Your task to perform on an android device: open wifi settings Image 0: 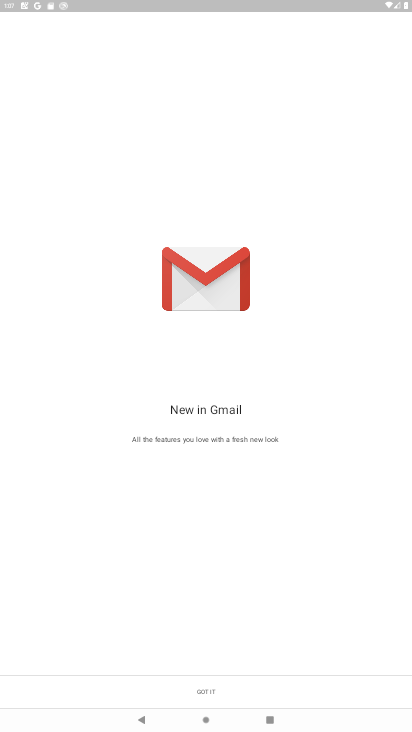
Step 0: press home button
Your task to perform on an android device: open wifi settings Image 1: 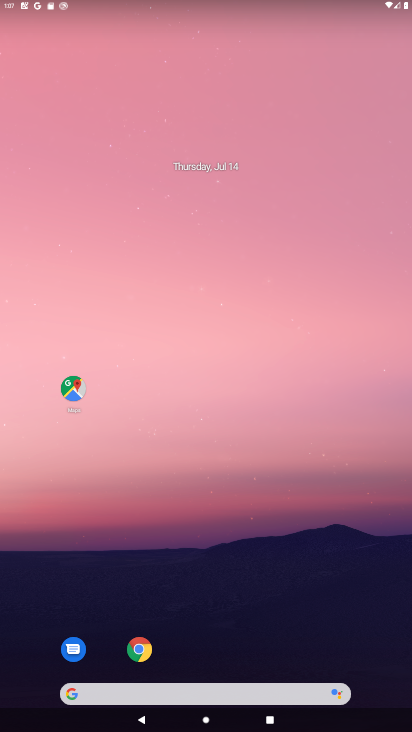
Step 1: drag from (191, 694) to (135, 205)
Your task to perform on an android device: open wifi settings Image 2: 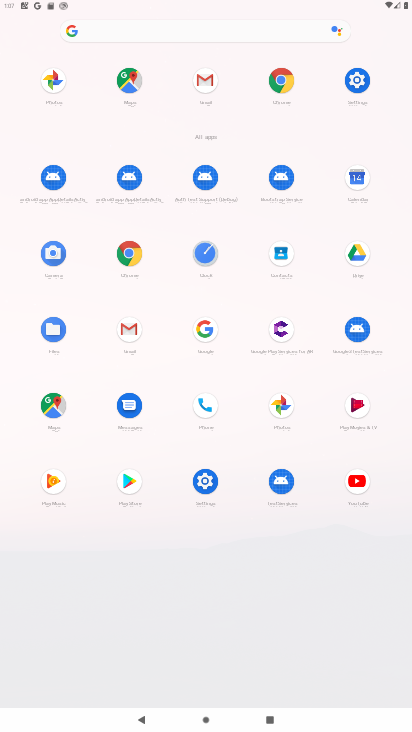
Step 2: click (348, 87)
Your task to perform on an android device: open wifi settings Image 3: 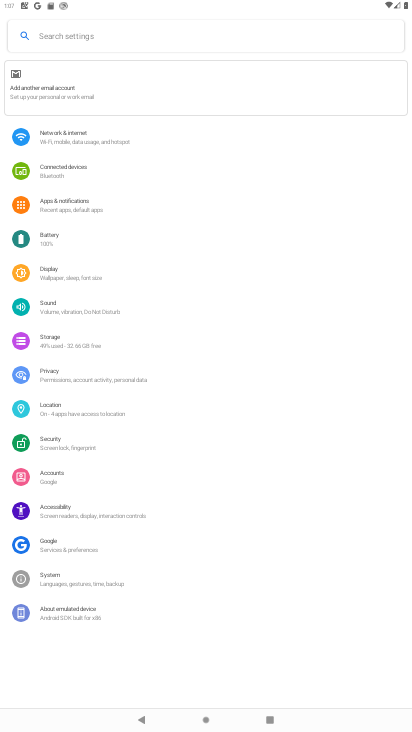
Step 3: click (149, 143)
Your task to perform on an android device: open wifi settings Image 4: 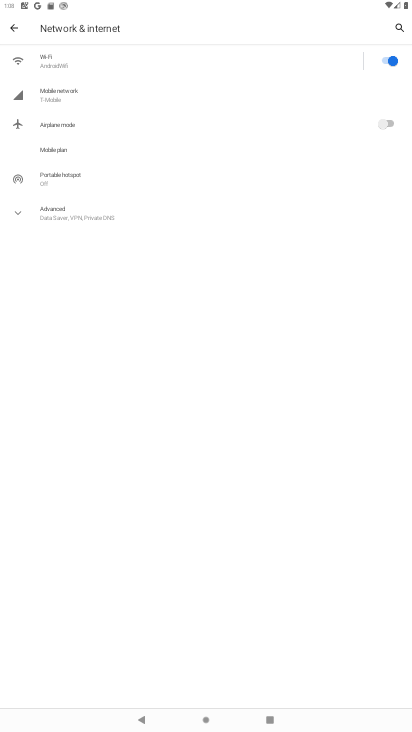
Step 4: click (154, 55)
Your task to perform on an android device: open wifi settings Image 5: 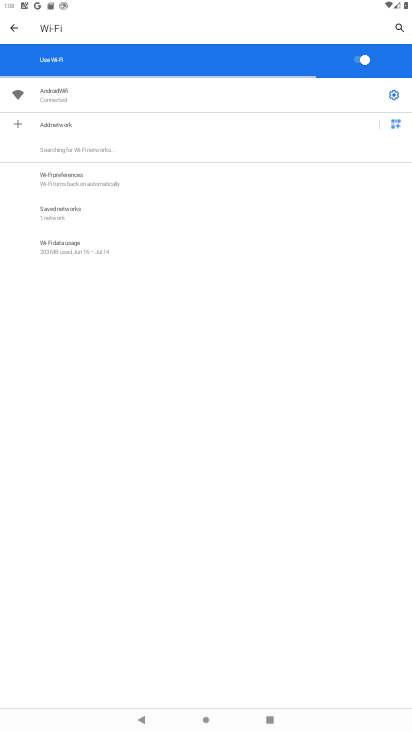
Step 5: task complete